Your task to perform on an android device: open chrome privacy settings Image 0: 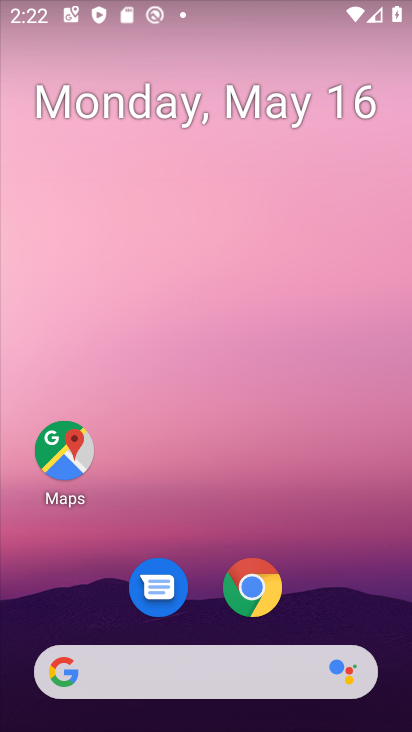
Step 0: drag from (372, 636) to (178, 204)
Your task to perform on an android device: open chrome privacy settings Image 1: 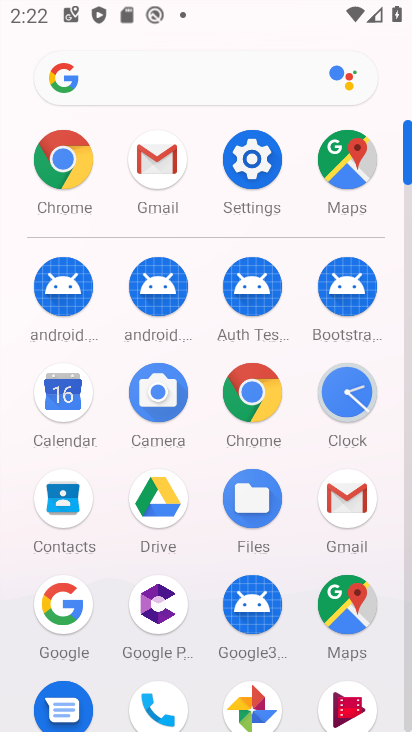
Step 1: click (250, 176)
Your task to perform on an android device: open chrome privacy settings Image 2: 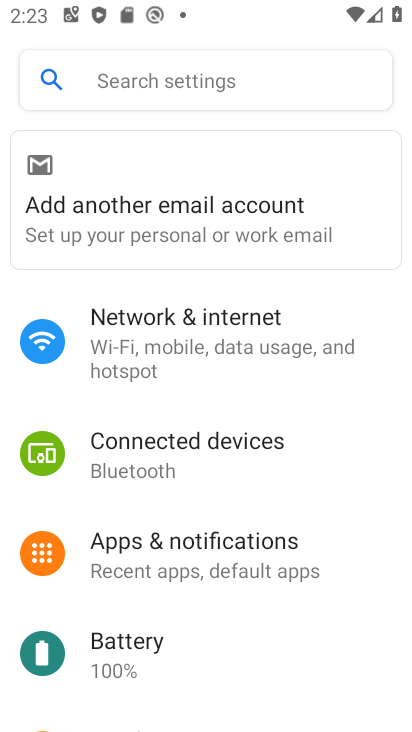
Step 2: press back button
Your task to perform on an android device: open chrome privacy settings Image 3: 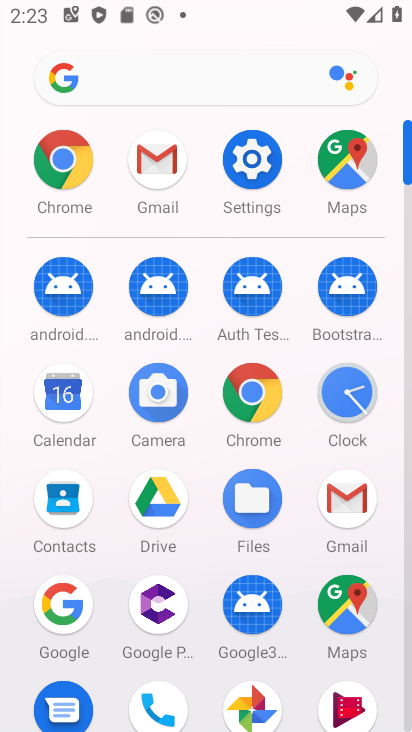
Step 3: click (253, 390)
Your task to perform on an android device: open chrome privacy settings Image 4: 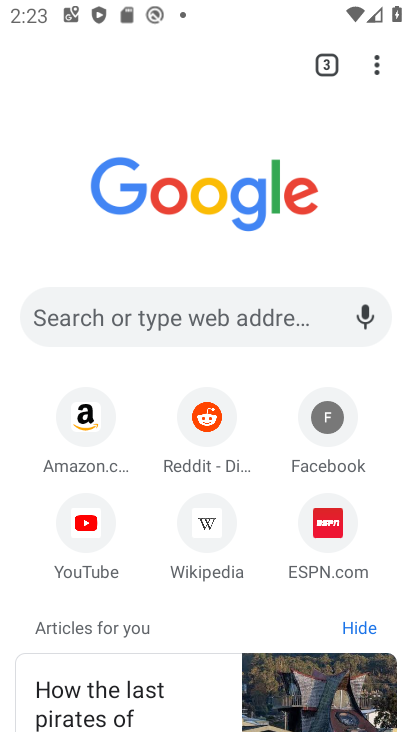
Step 4: drag from (374, 70) to (120, 553)
Your task to perform on an android device: open chrome privacy settings Image 5: 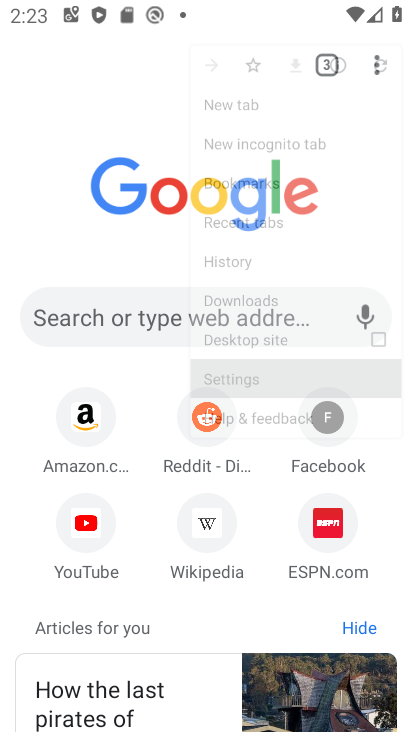
Step 5: click (120, 553)
Your task to perform on an android device: open chrome privacy settings Image 6: 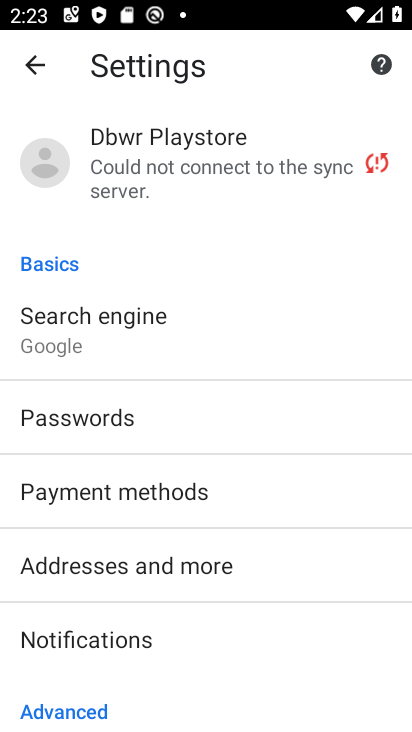
Step 6: task complete